Your task to perform on an android device: see tabs open on other devices in the chrome app Image 0: 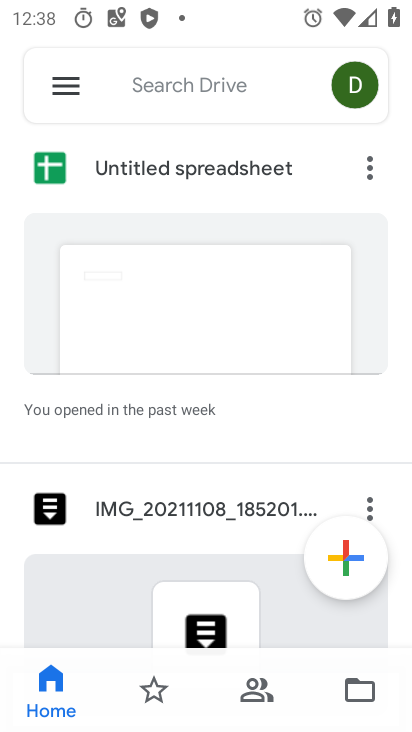
Step 0: press home button
Your task to perform on an android device: see tabs open on other devices in the chrome app Image 1: 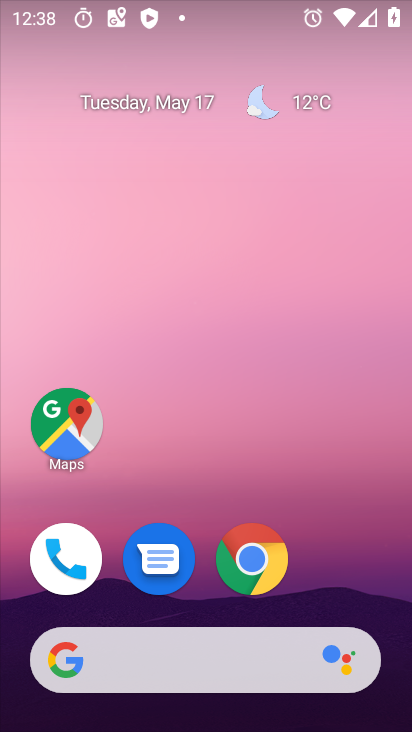
Step 1: click (245, 561)
Your task to perform on an android device: see tabs open on other devices in the chrome app Image 2: 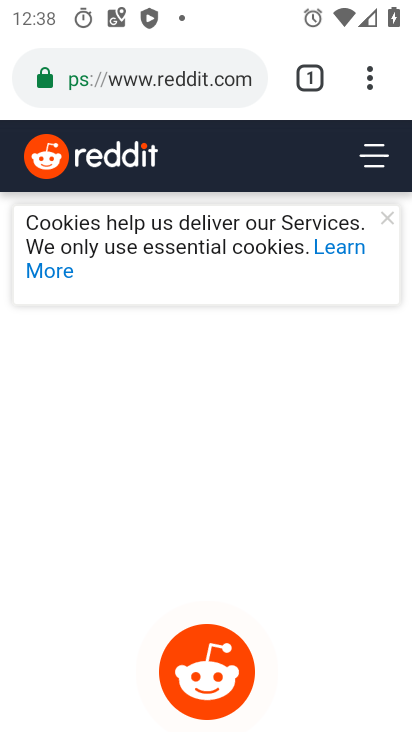
Step 2: task complete